Your task to perform on an android device: Clear all items from cart on target.com. Add lenovo thinkpad to the cart on target.com Image 0: 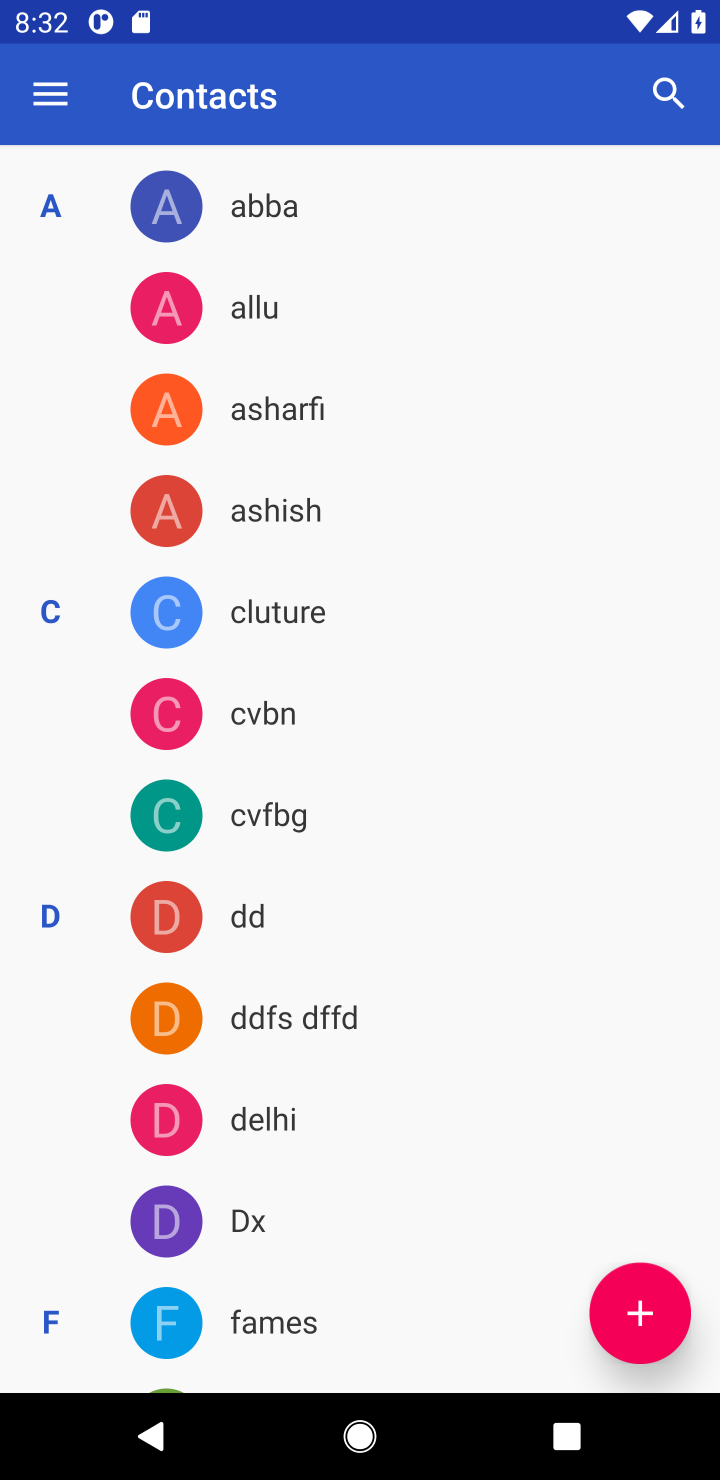
Step 0: press home button
Your task to perform on an android device: Clear all items from cart on target.com. Add lenovo thinkpad to the cart on target.com Image 1: 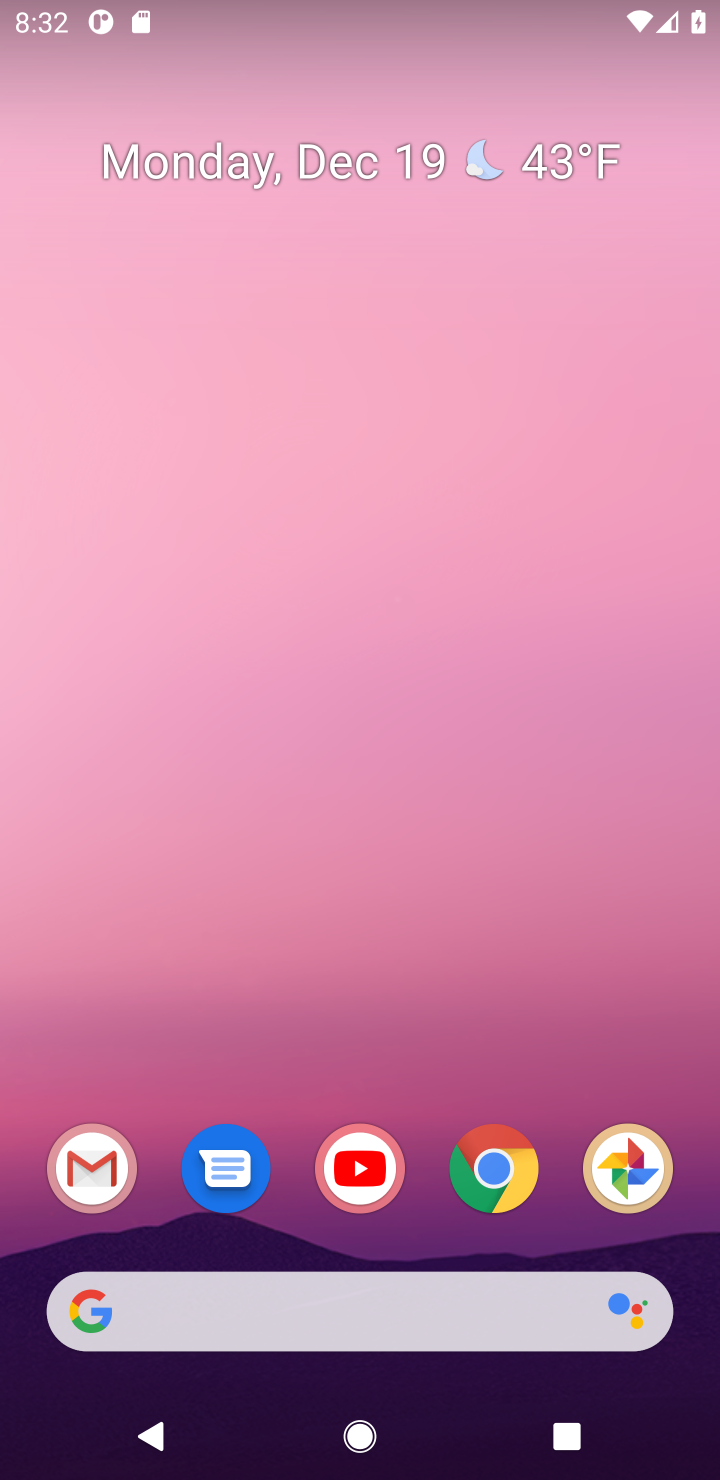
Step 1: click (493, 1170)
Your task to perform on an android device: Clear all items from cart on target.com. Add lenovo thinkpad to the cart on target.com Image 2: 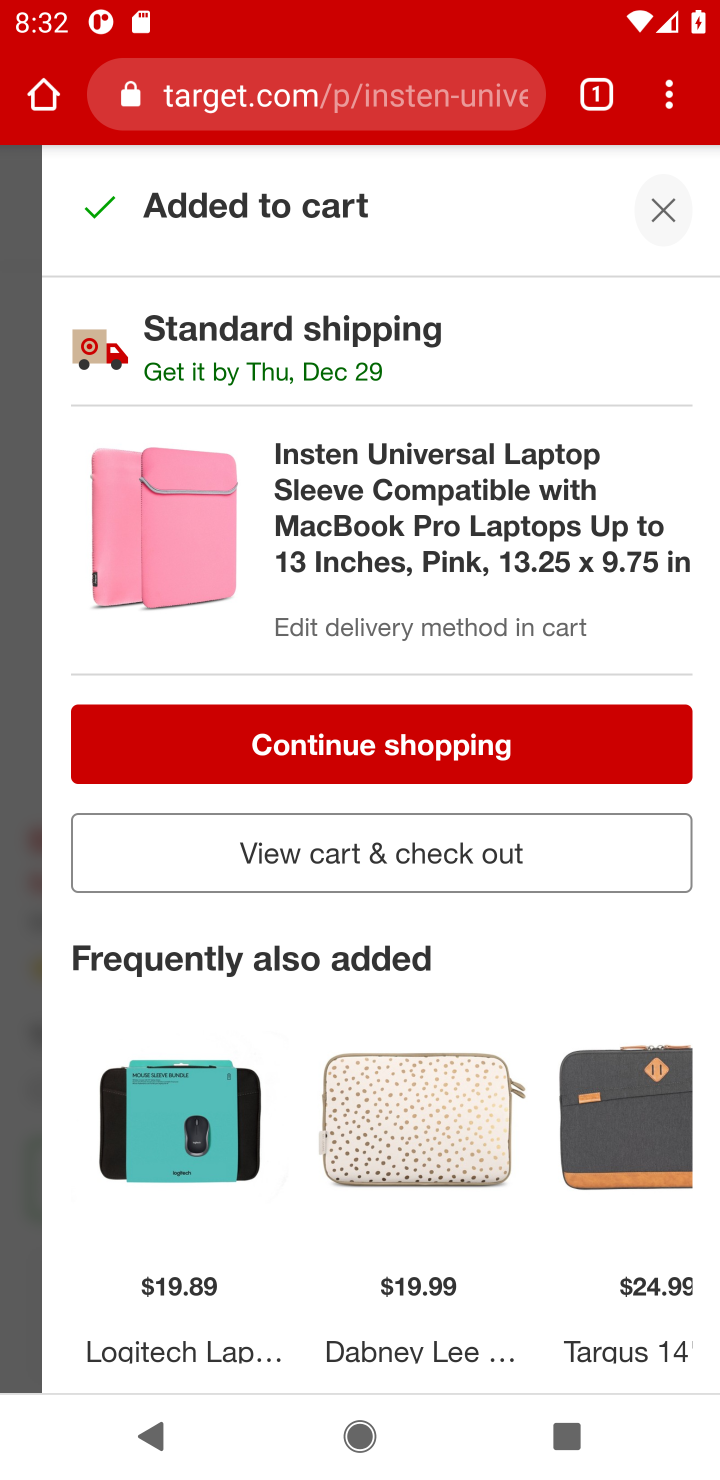
Step 2: click (672, 209)
Your task to perform on an android device: Clear all items from cart on target.com. Add lenovo thinkpad to the cart on target.com Image 3: 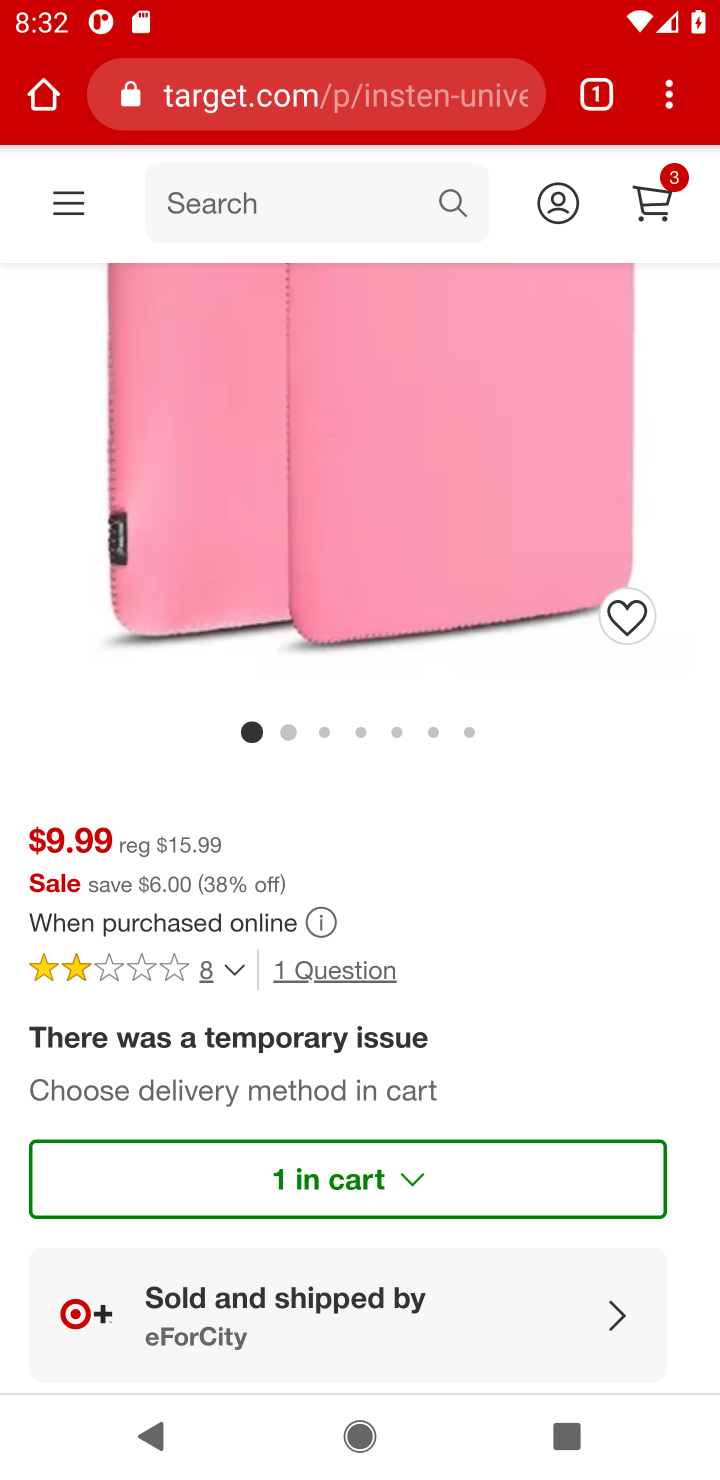
Step 3: click (663, 185)
Your task to perform on an android device: Clear all items from cart on target.com. Add lenovo thinkpad to the cart on target.com Image 4: 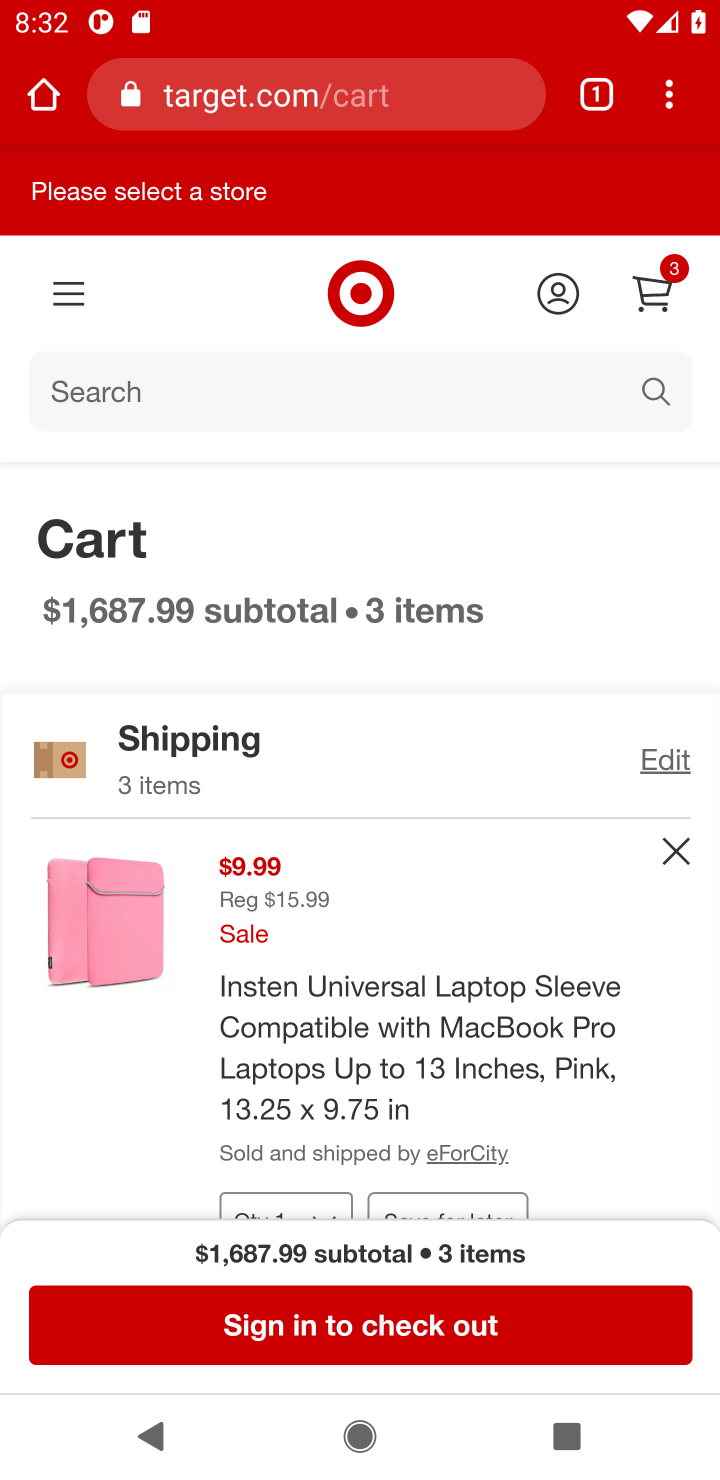
Step 4: click (674, 856)
Your task to perform on an android device: Clear all items from cart on target.com. Add lenovo thinkpad to the cart on target.com Image 5: 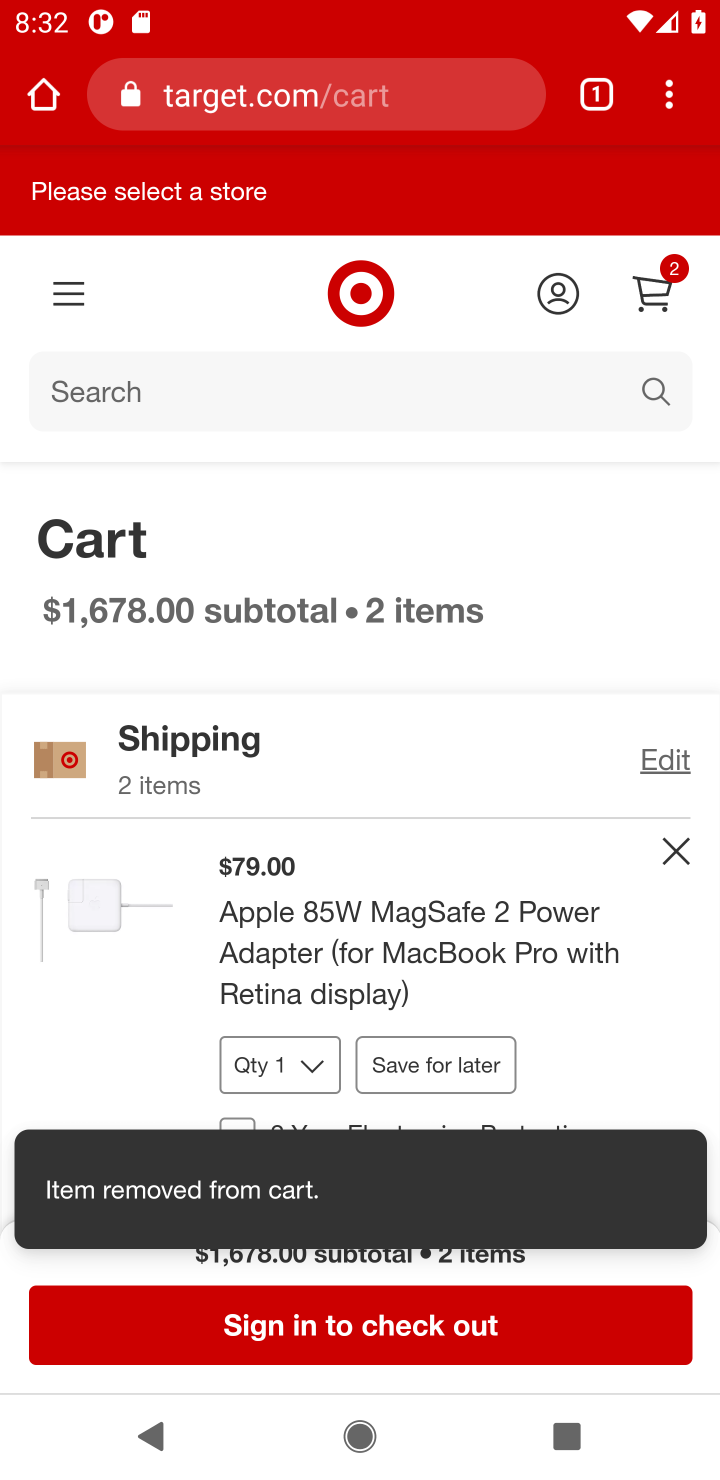
Step 5: click (674, 856)
Your task to perform on an android device: Clear all items from cart on target.com. Add lenovo thinkpad to the cart on target.com Image 6: 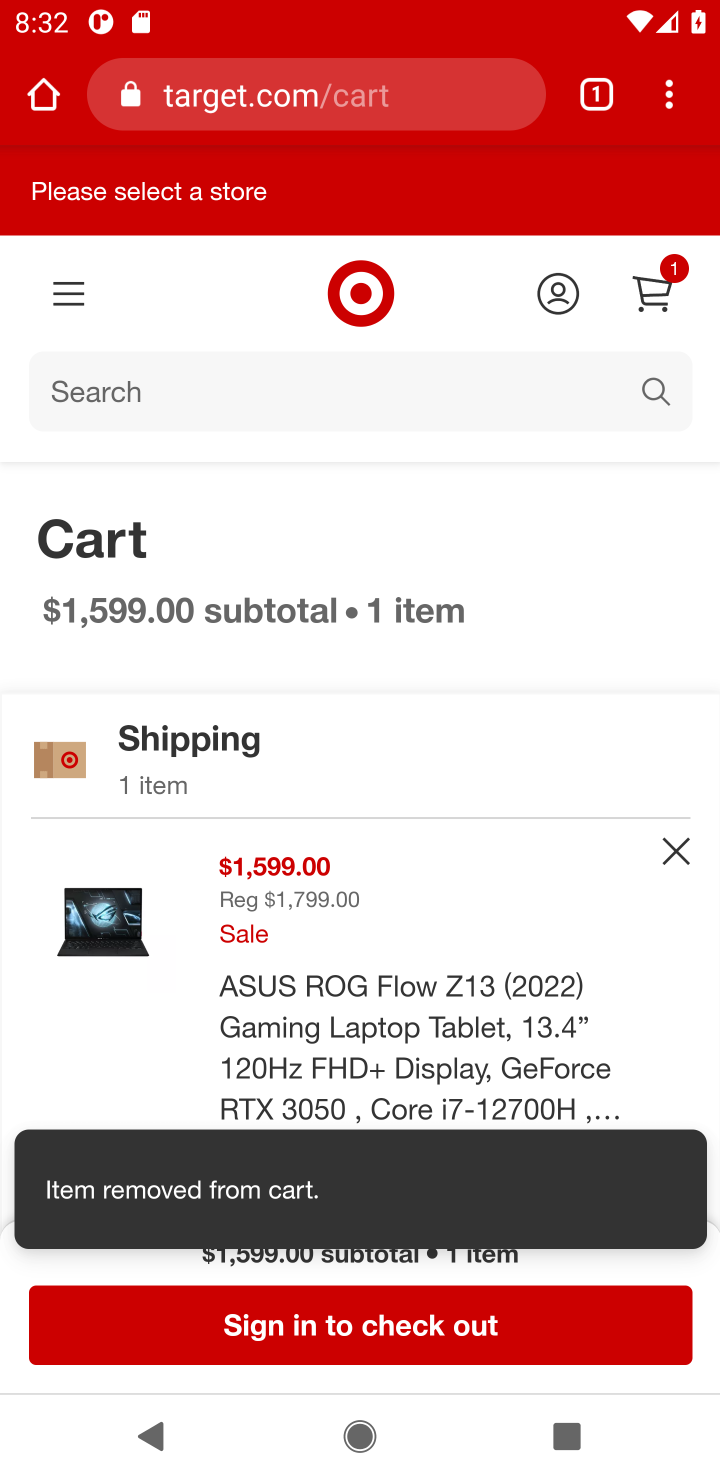
Step 6: click (674, 856)
Your task to perform on an android device: Clear all items from cart on target.com. Add lenovo thinkpad to the cart on target.com Image 7: 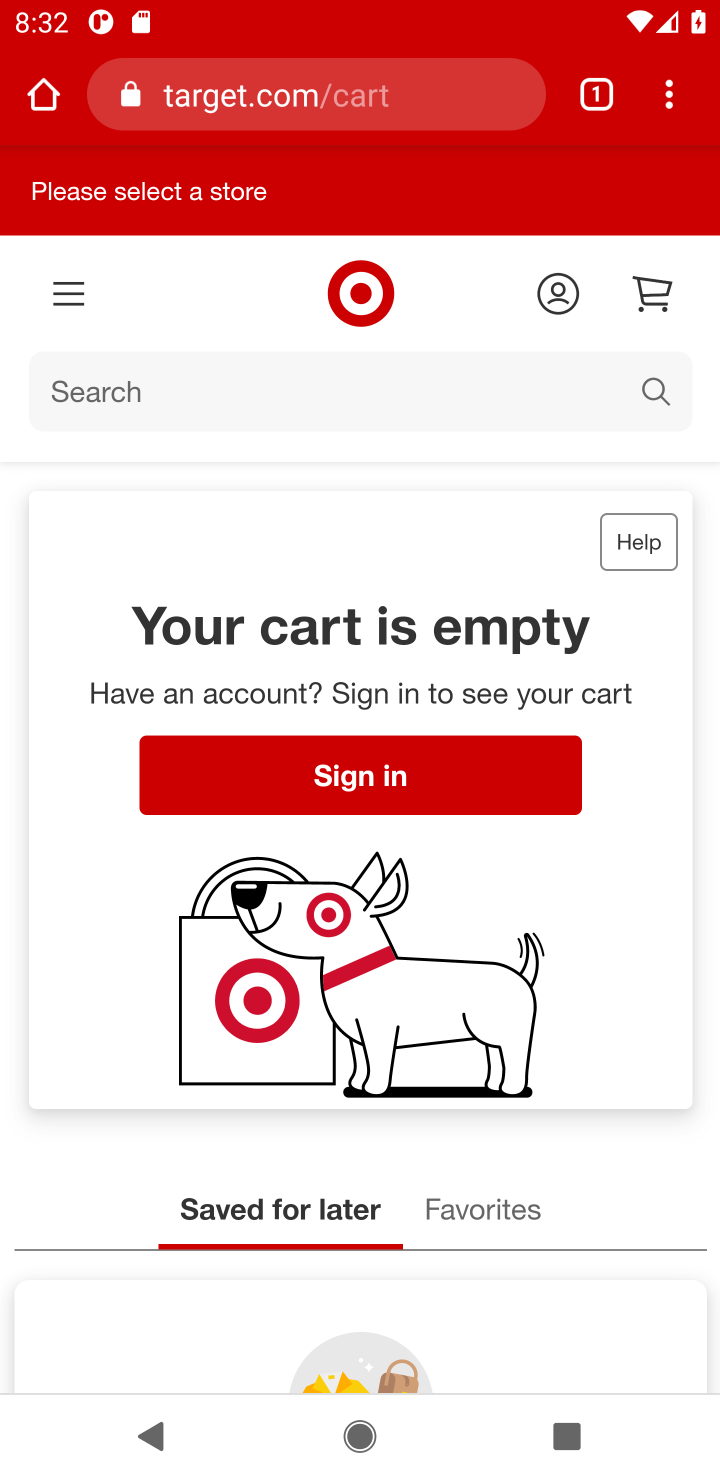
Step 7: click (97, 405)
Your task to perform on an android device: Clear all items from cart on target.com. Add lenovo thinkpad to the cart on target.com Image 8: 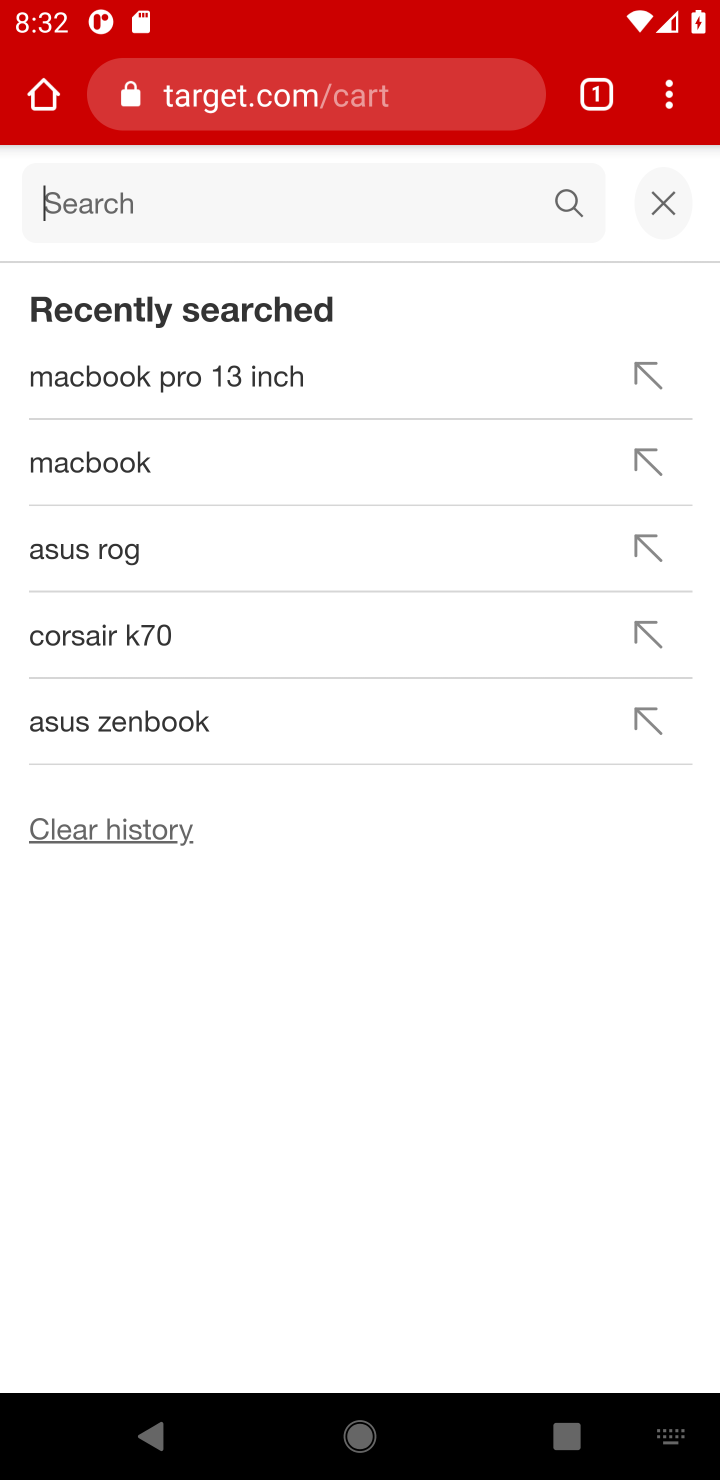
Step 8: type " lenovo thinkpad"
Your task to perform on an android device: Clear all items from cart on target.com. Add lenovo thinkpad to the cart on target.com Image 9: 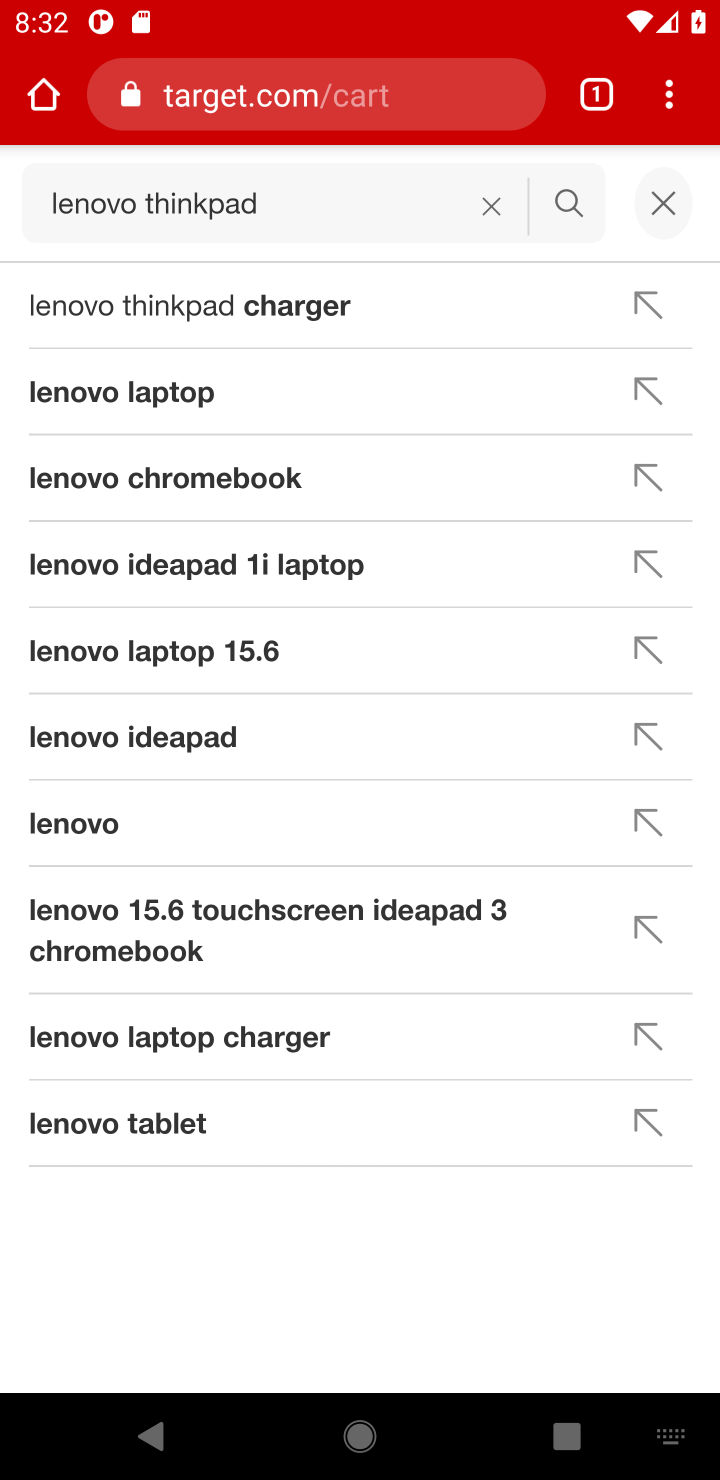
Step 9: click (563, 208)
Your task to perform on an android device: Clear all items from cart on target.com. Add lenovo thinkpad to the cart on target.com Image 10: 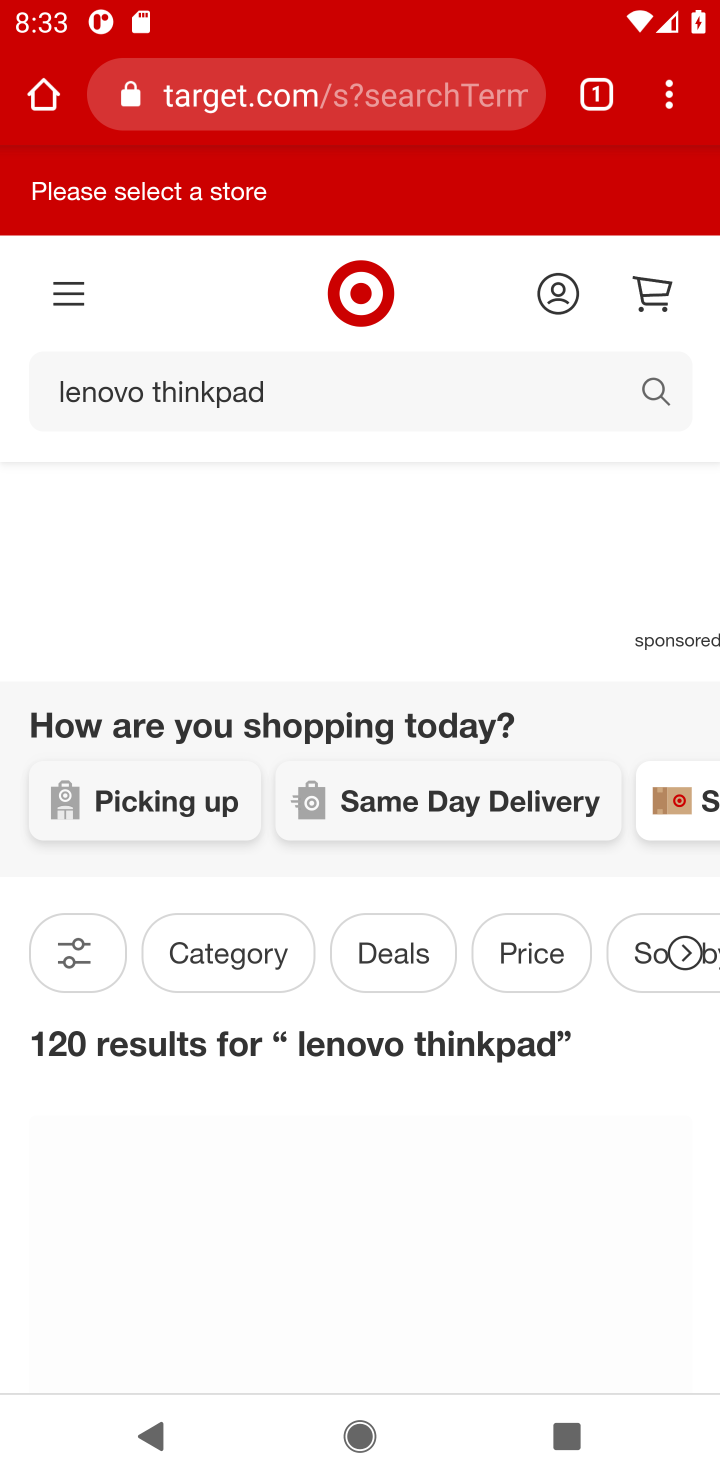
Step 10: drag from (238, 1163) to (185, 485)
Your task to perform on an android device: Clear all items from cart on target.com. Add lenovo thinkpad to the cart on target.com Image 11: 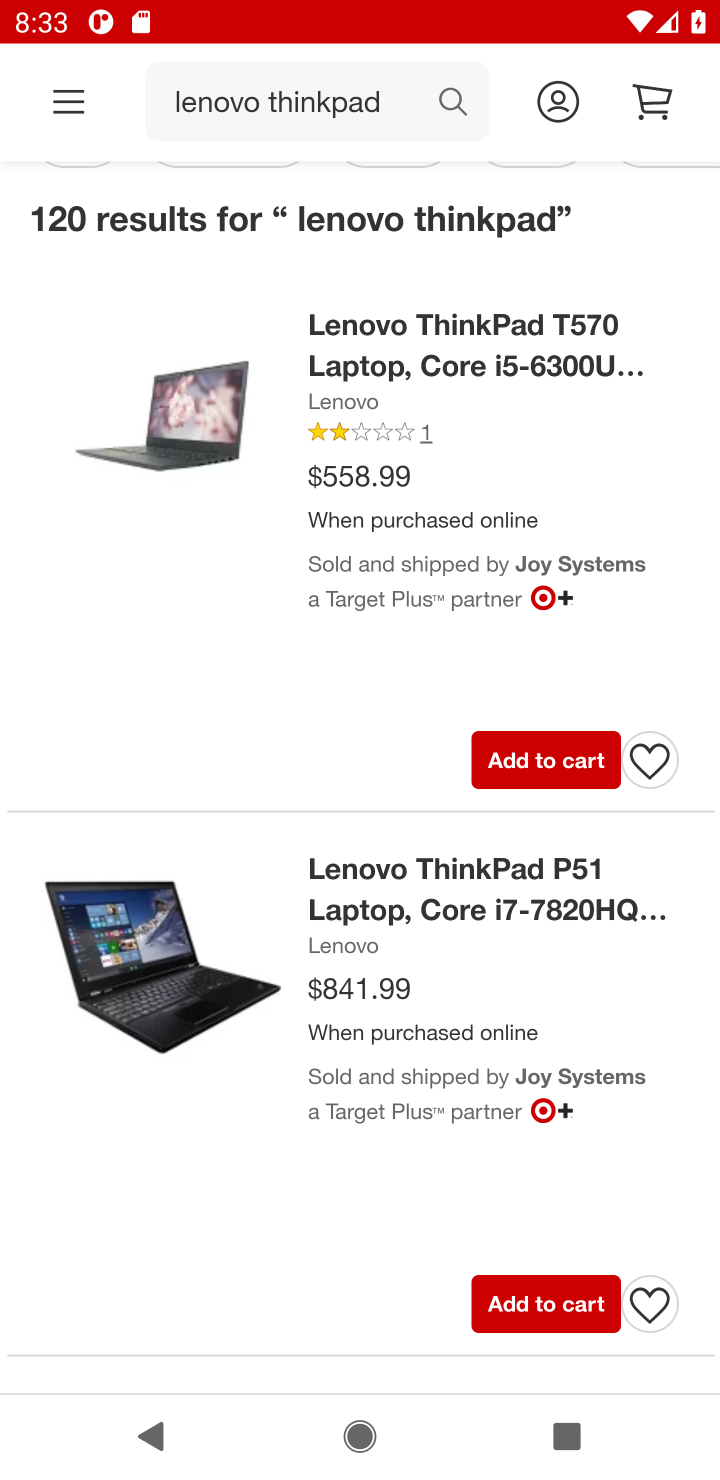
Step 11: click (552, 751)
Your task to perform on an android device: Clear all items from cart on target.com. Add lenovo thinkpad to the cart on target.com Image 12: 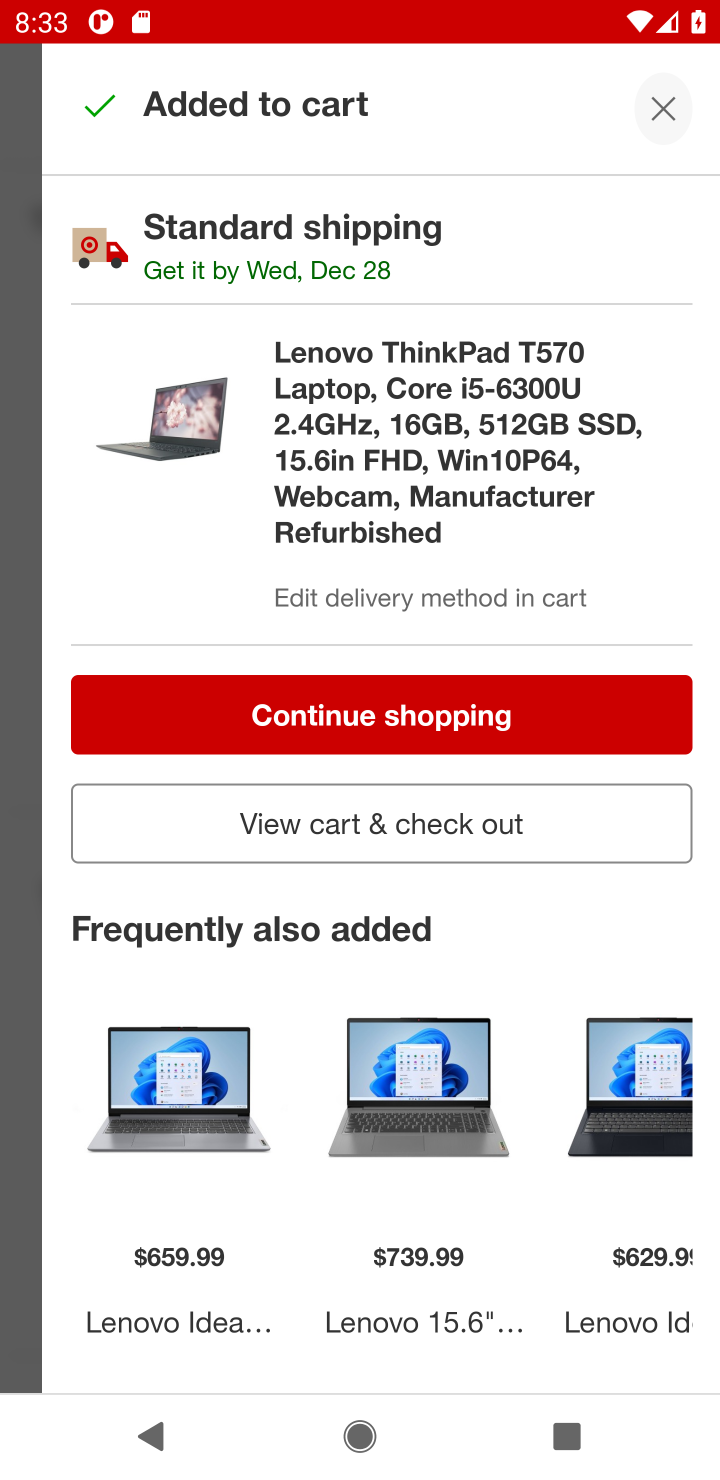
Step 12: task complete